Your task to perform on an android device: Open maps Image 0: 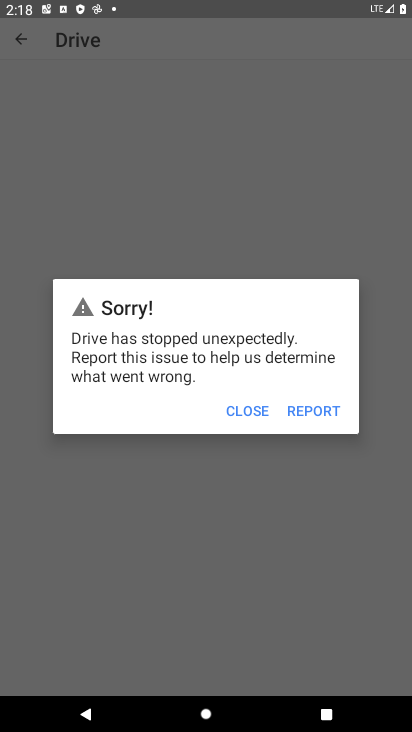
Step 0: press home button
Your task to perform on an android device: Open maps Image 1: 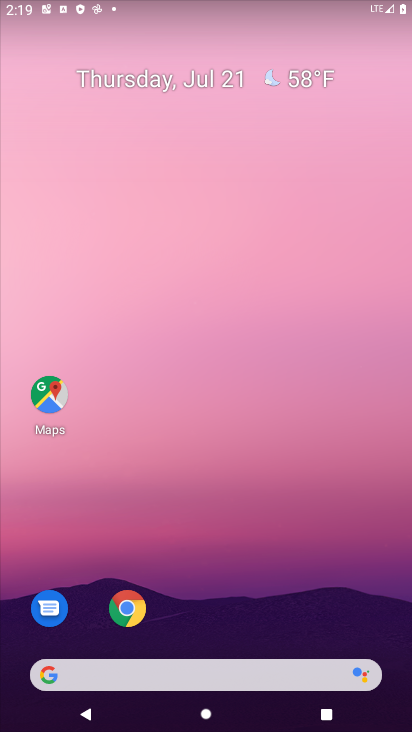
Step 1: drag from (383, 639) to (265, 4)
Your task to perform on an android device: Open maps Image 2: 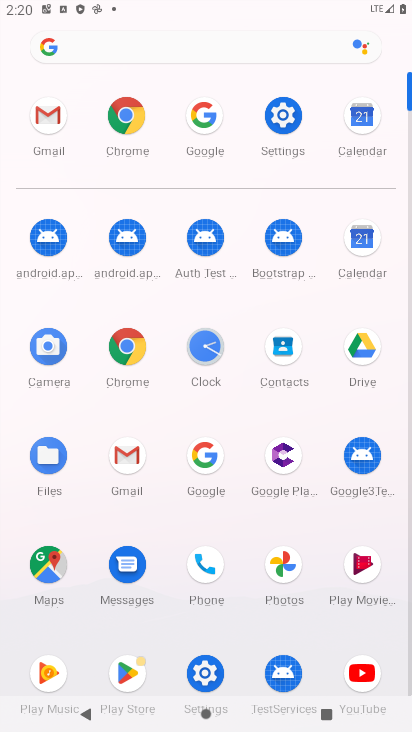
Step 2: click (48, 561)
Your task to perform on an android device: Open maps Image 3: 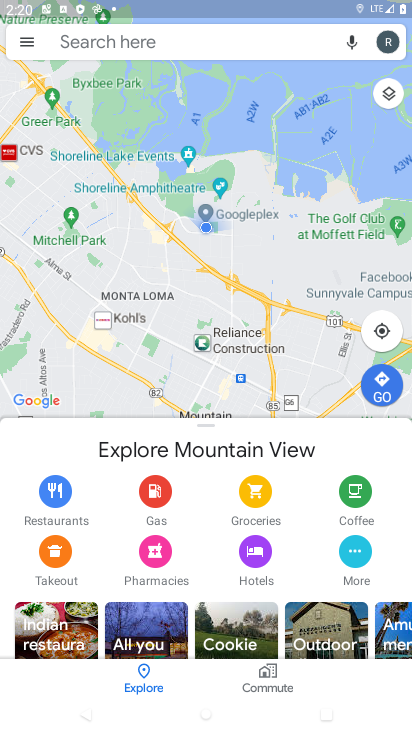
Step 3: task complete